Your task to perform on an android device: Check the news Image 0: 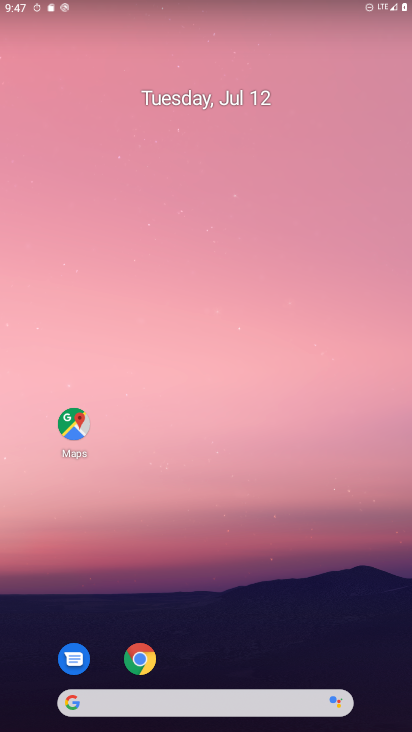
Step 0: drag from (381, 677) to (213, 0)
Your task to perform on an android device: Check the news Image 1: 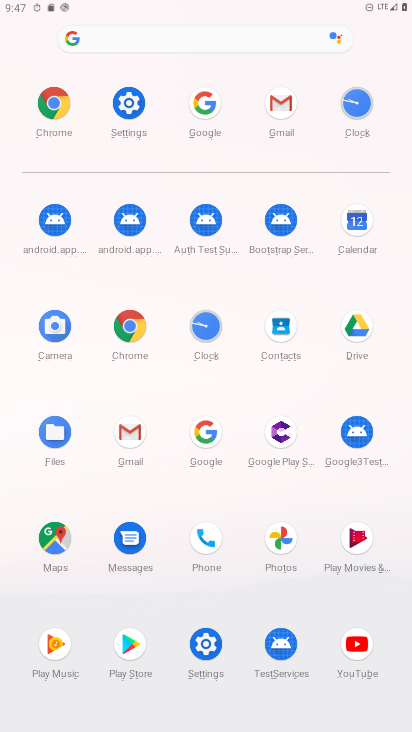
Step 1: click (217, 436)
Your task to perform on an android device: Check the news Image 2: 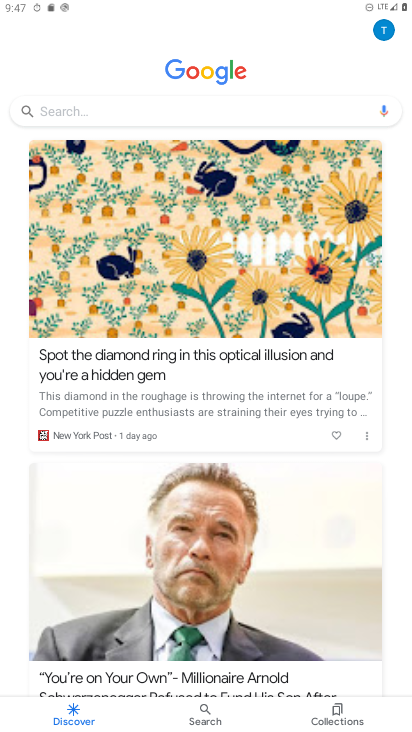
Step 2: click (89, 109)
Your task to perform on an android device: Check the news Image 3: 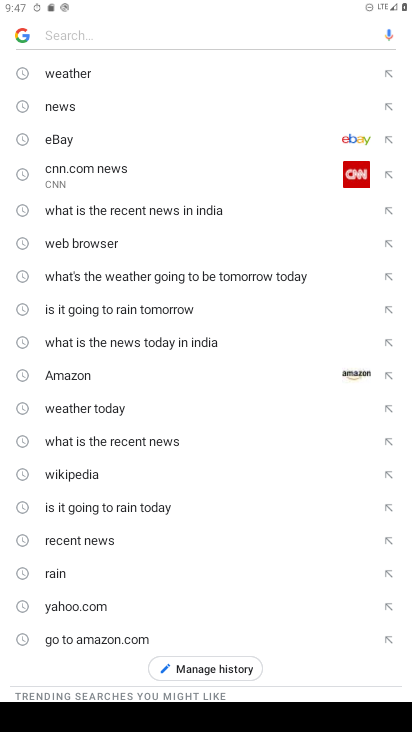
Step 3: click (69, 103)
Your task to perform on an android device: Check the news Image 4: 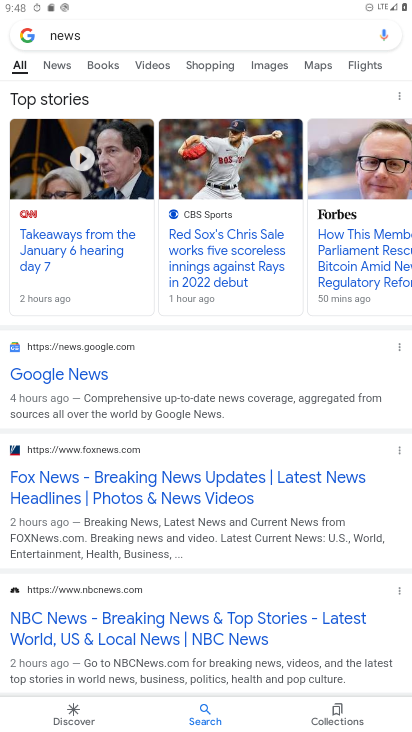
Step 4: task complete